Your task to perform on an android device: turn on javascript in the chrome app Image 0: 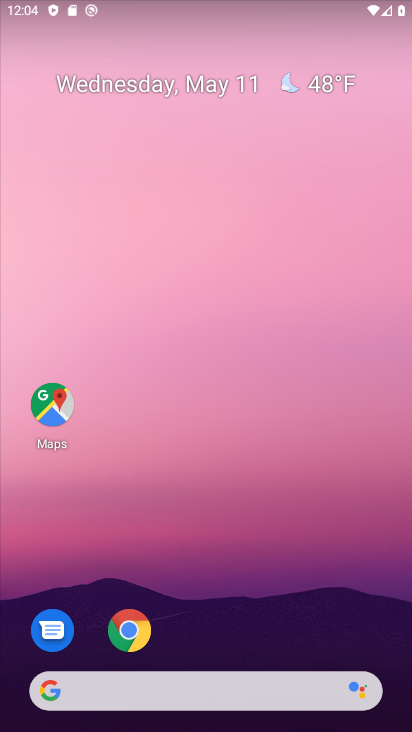
Step 0: click (143, 624)
Your task to perform on an android device: turn on javascript in the chrome app Image 1: 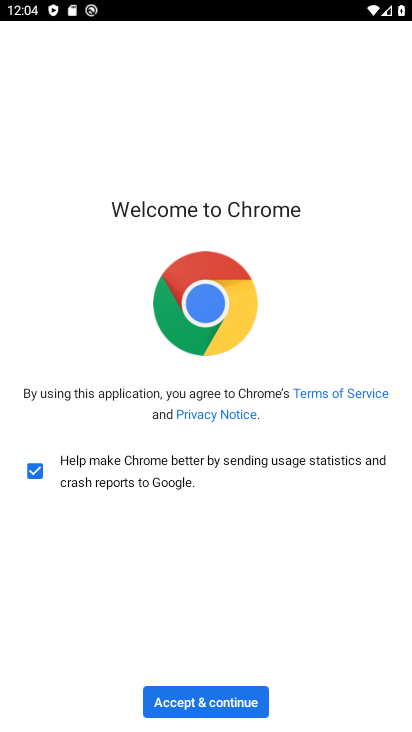
Step 1: click (242, 697)
Your task to perform on an android device: turn on javascript in the chrome app Image 2: 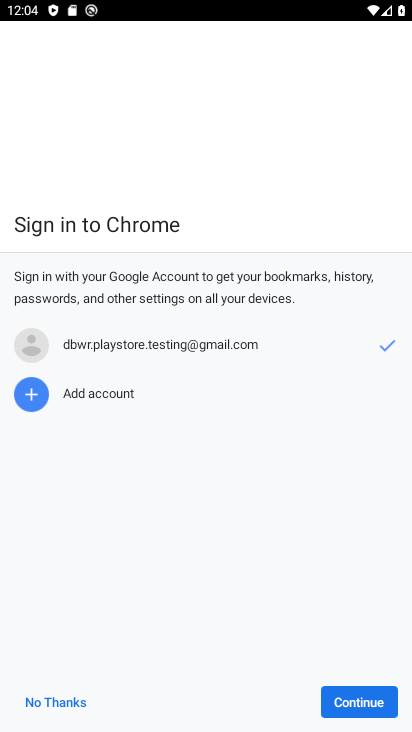
Step 2: click (341, 702)
Your task to perform on an android device: turn on javascript in the chrome app Image 3: 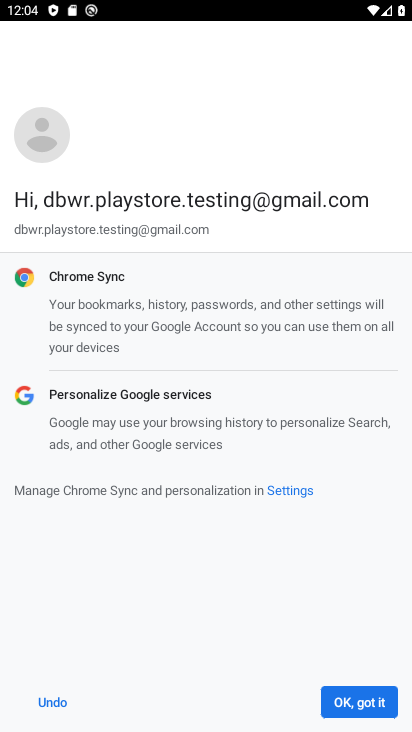
Step 3: click (343, 702)
Your task to perform on an android device: turn on javascript in the chrome app Image 4: 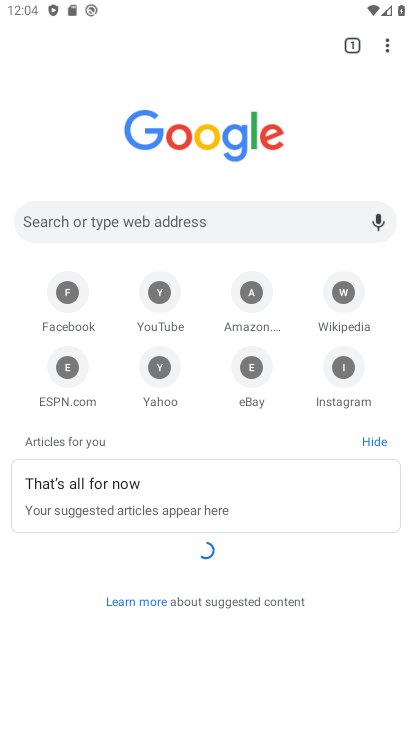
Step 4: click (379, 48)
Your task to perform on an android device: turn on javascript in the chrome app Image 5: 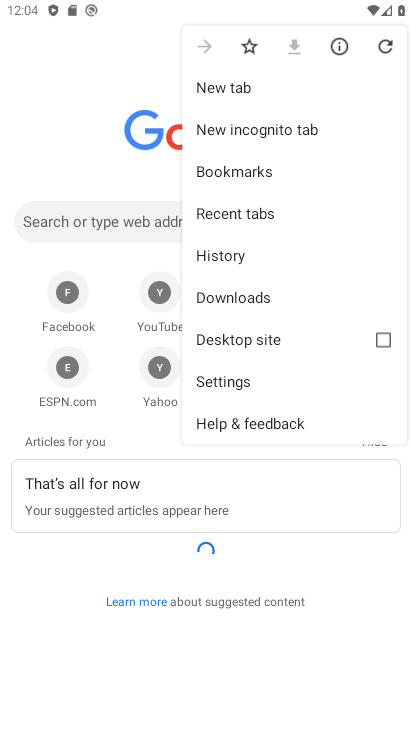
Step 5: click (230, 390)
Your task to perform on an android device: turn on javascript in the chrome app Image 6: 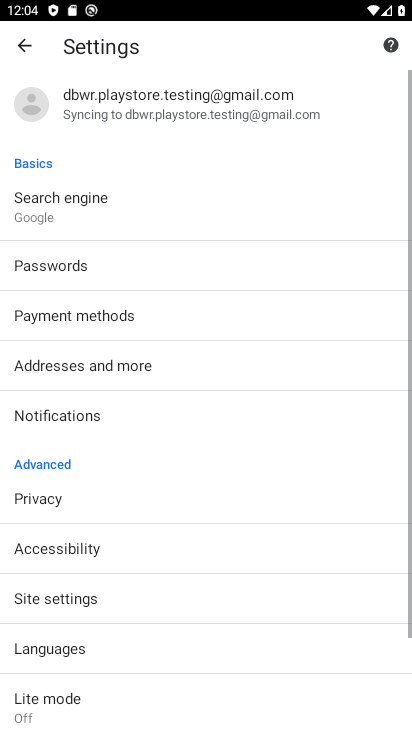
Step 6: drag from (233, 550) to (221, 227)
Your task to perform on an android device: turn on javascript in the chrome app Image 7: 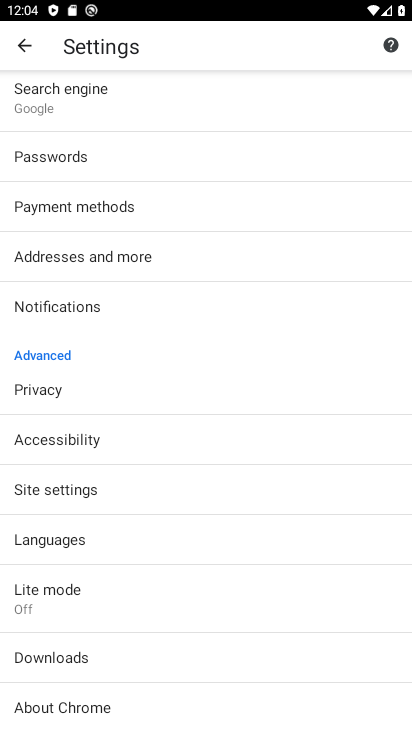
Step 7: click (74, 480)
Your task to perform on an android device: turn on javascript in the chrome app Image 8: 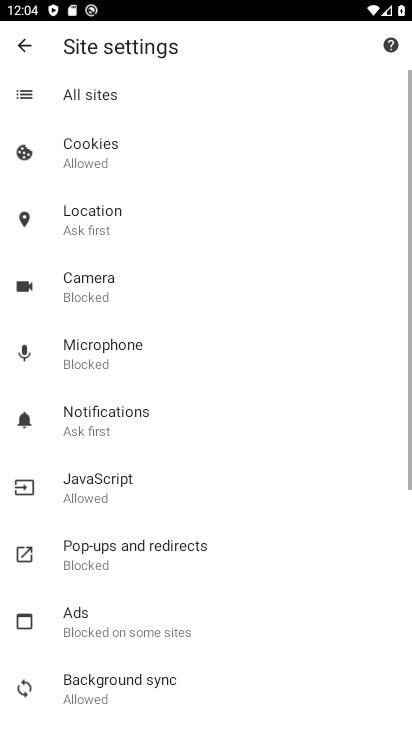
Step 8: click (74, 481)
Your task to perform on an android device: turn on javascript in the chrome app Image 9: 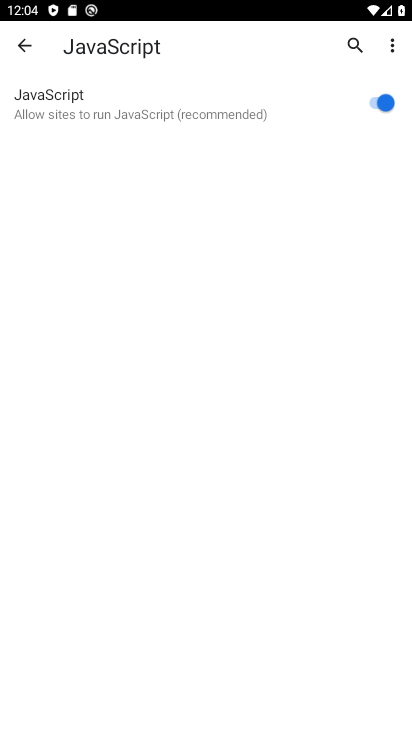
Step 9: task complete